Your task to perform on an android device: open device folders in google photos Image 0: 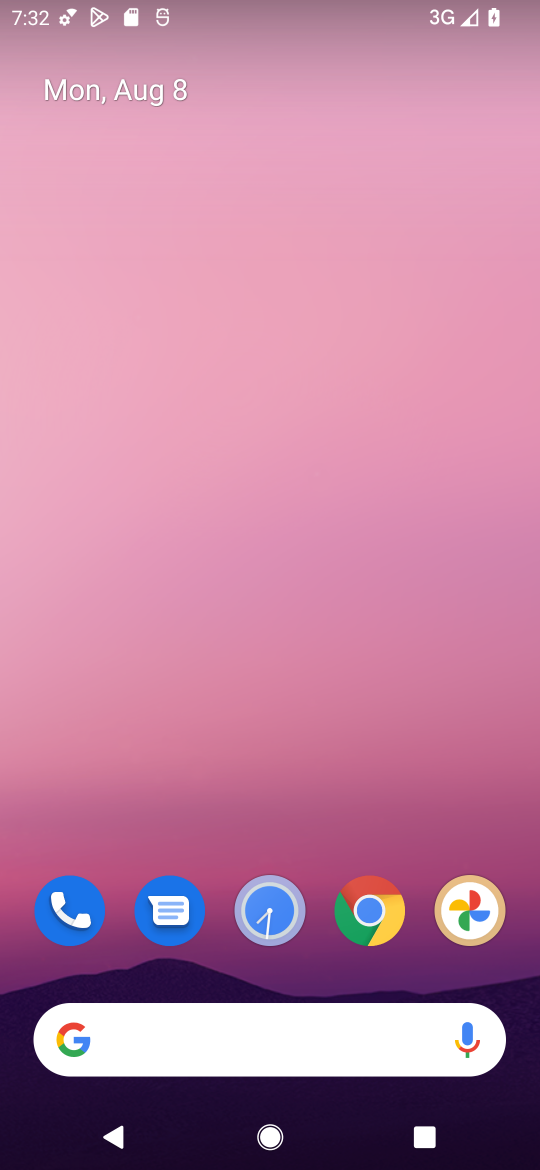
Step 0: click (460, 921)
Your task to perform on an android device: open device folders in google photos Image 1: 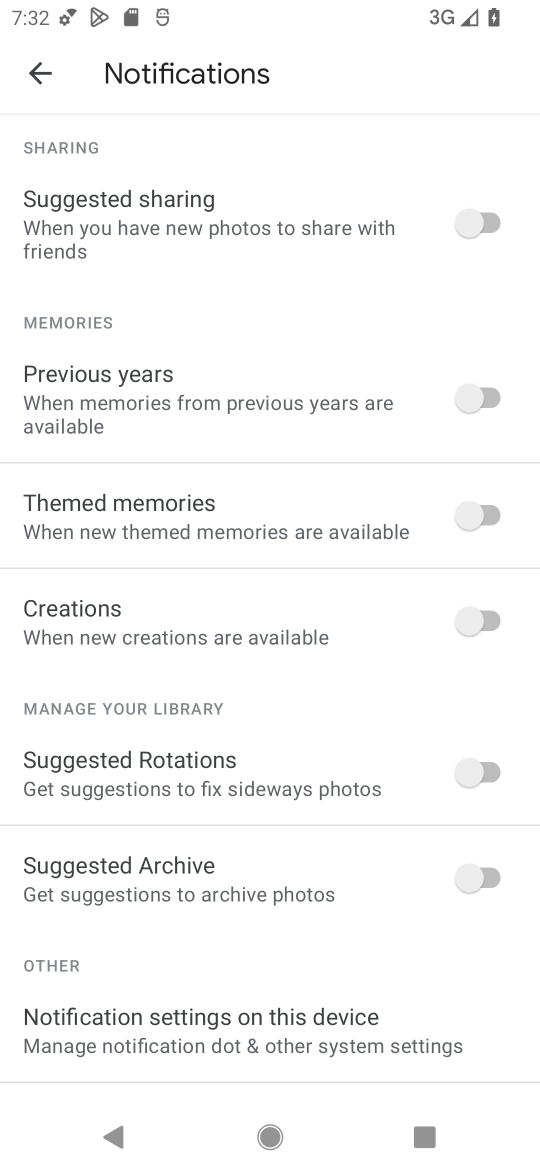
Step 1: click (40, 66)
Your task to perform on an android device: open device folders in google photos Image 2: 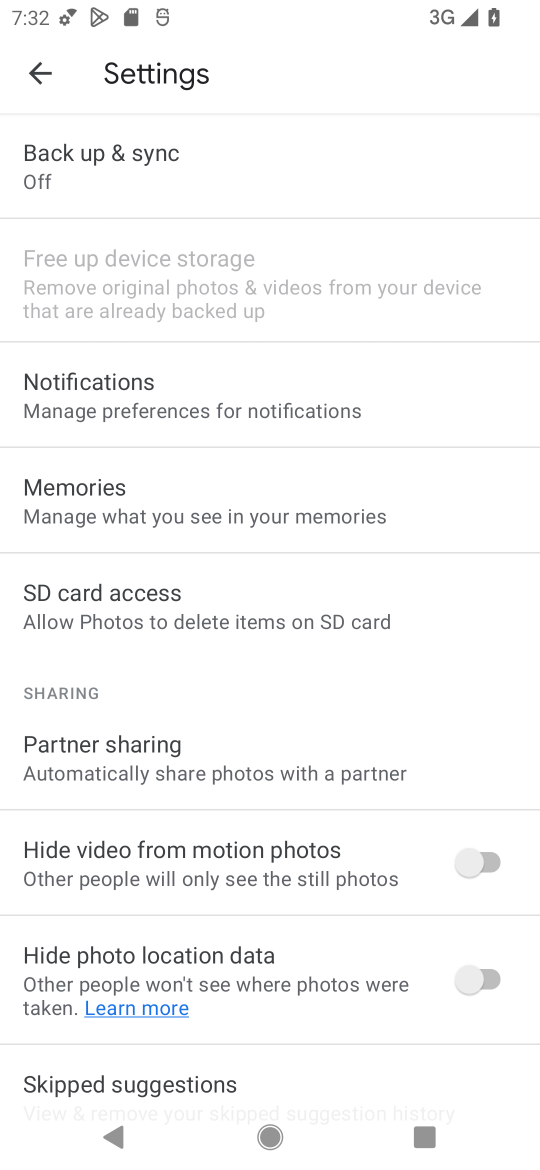
Step 2: click (37, 65)
Your task to perform on an android device: open device folders in google photos Image 3: 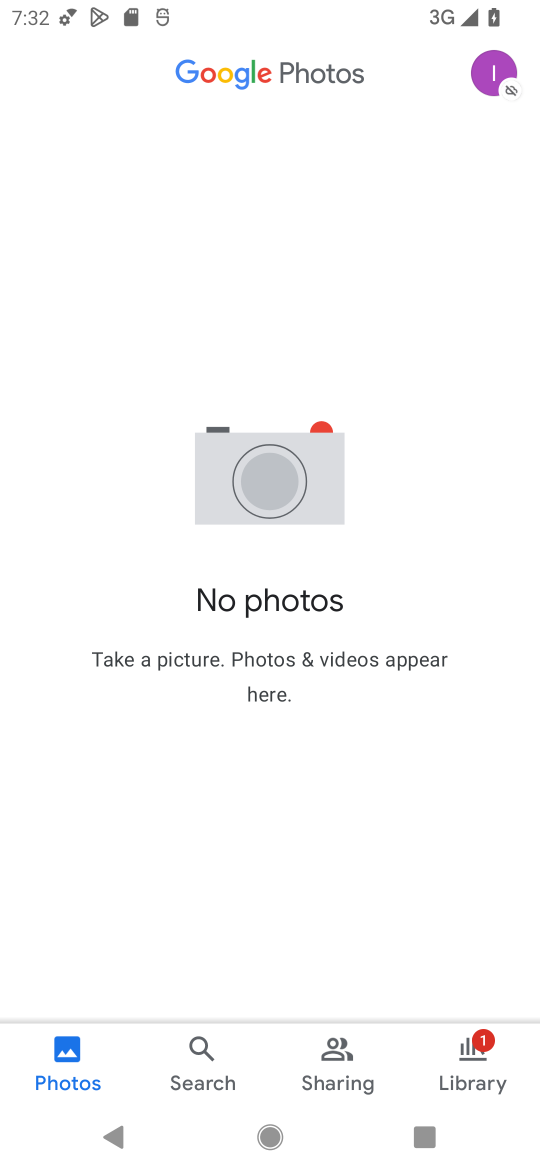
Step 3: click (475, 1053)
Your task to perform on an android device: open device folders in google photos Image 4: 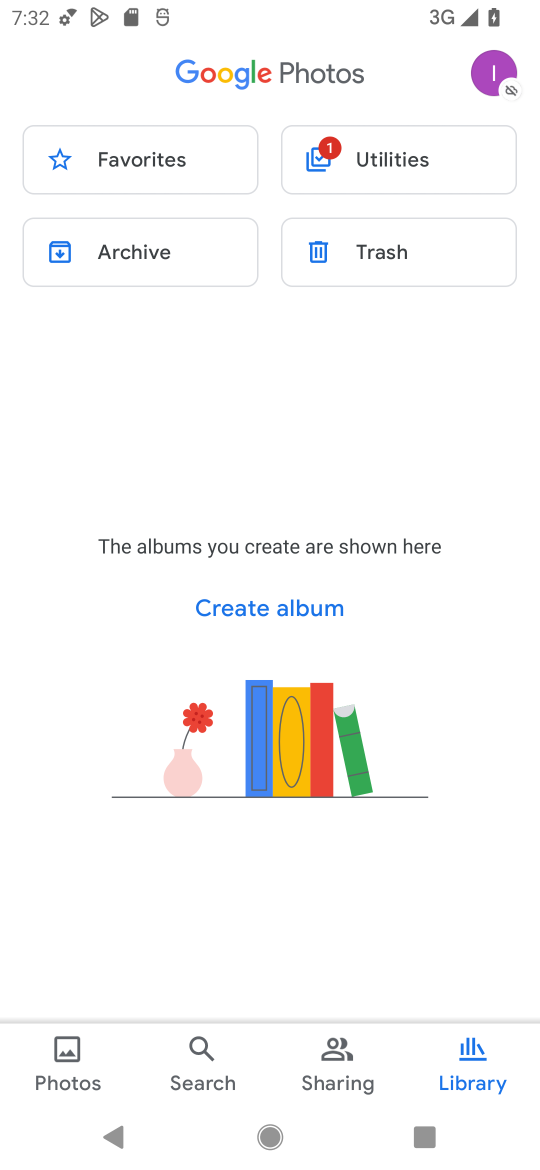
Step 4: click (486, 79)
Your task to perform on an android device: open device folders in google photos Image 5: 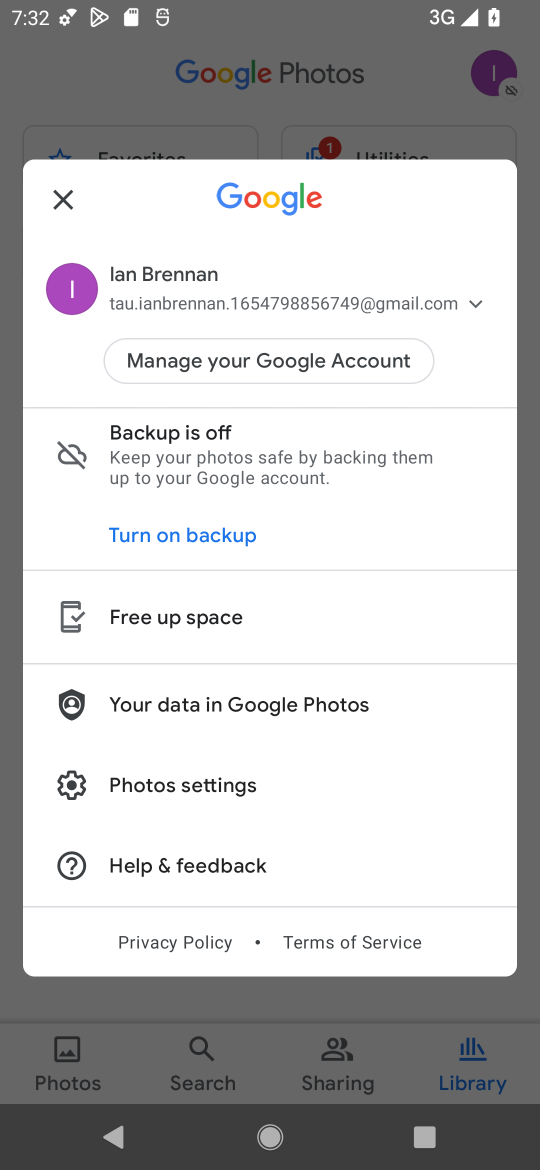
Step 5: click (192, 783)
Your task to perform on an android device: open device folders in google photos Image 6: 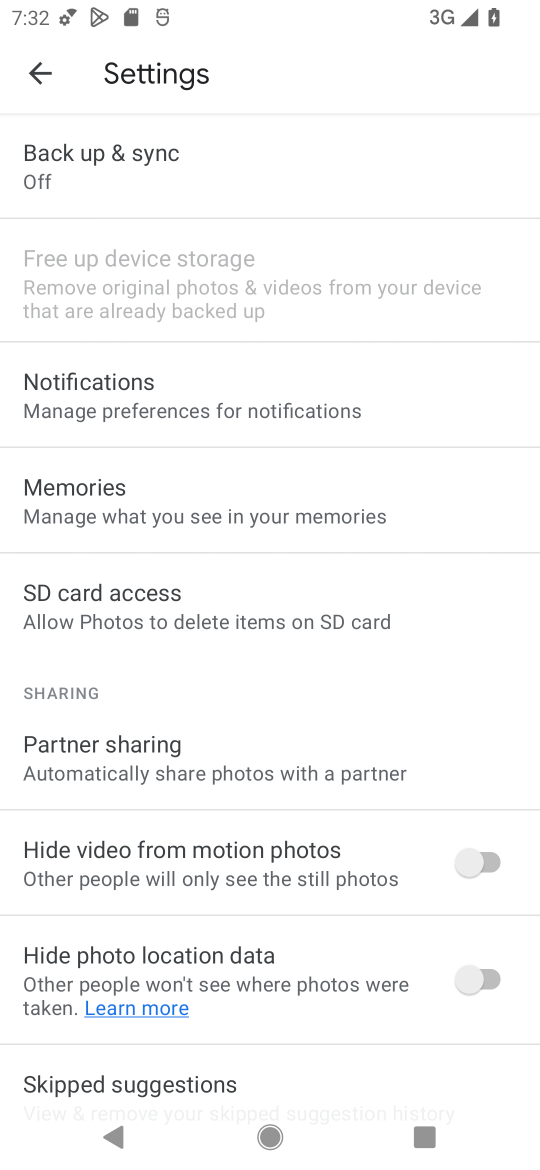
Step 6: click (119, 608)
Your task to perform on an android device: open device folders in google photos Image 7: 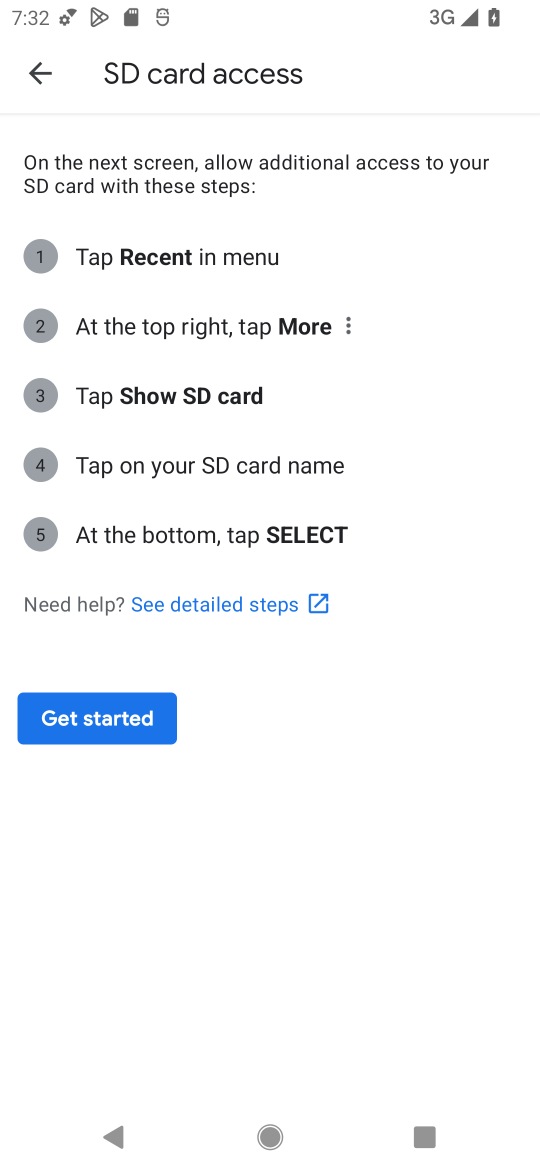
Step 7: click (80, 715)
Your task to perform on an android device: open device folders in google photos Image 8: 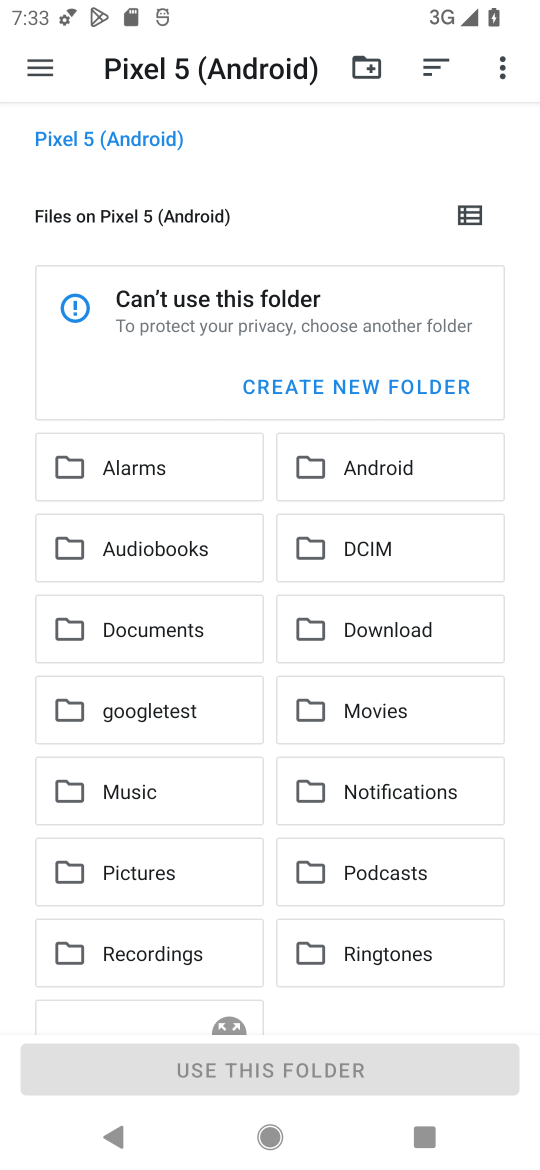
Step 8: task complete